Your task to perform on an android device: toggle airplane mode Image 0: 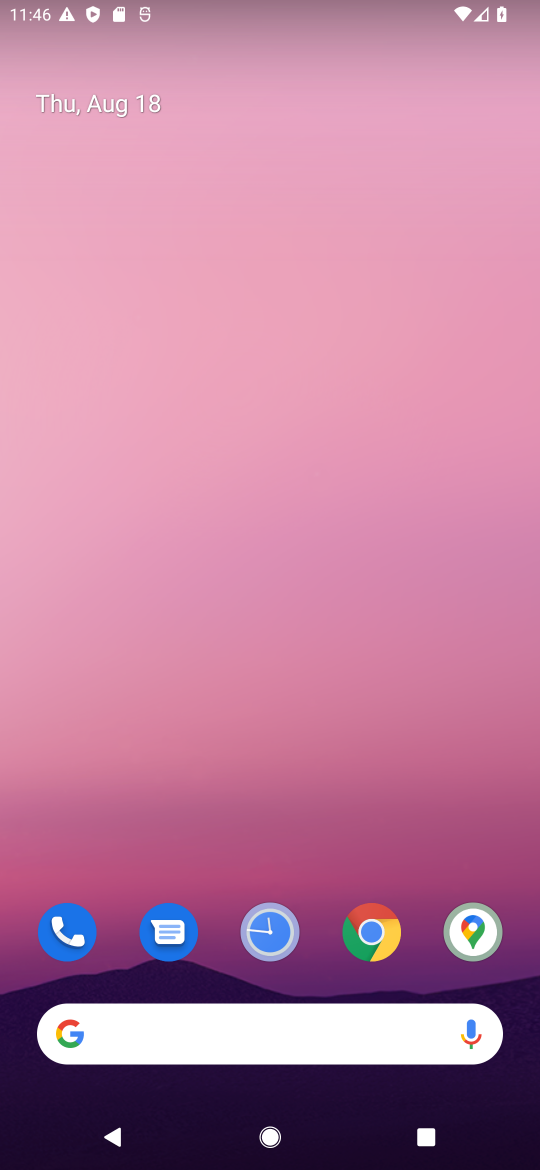
Step 0: drag from (282, 862) to (113, 16)
Your task to perform on an android device: toggle airplane mode Image 1: 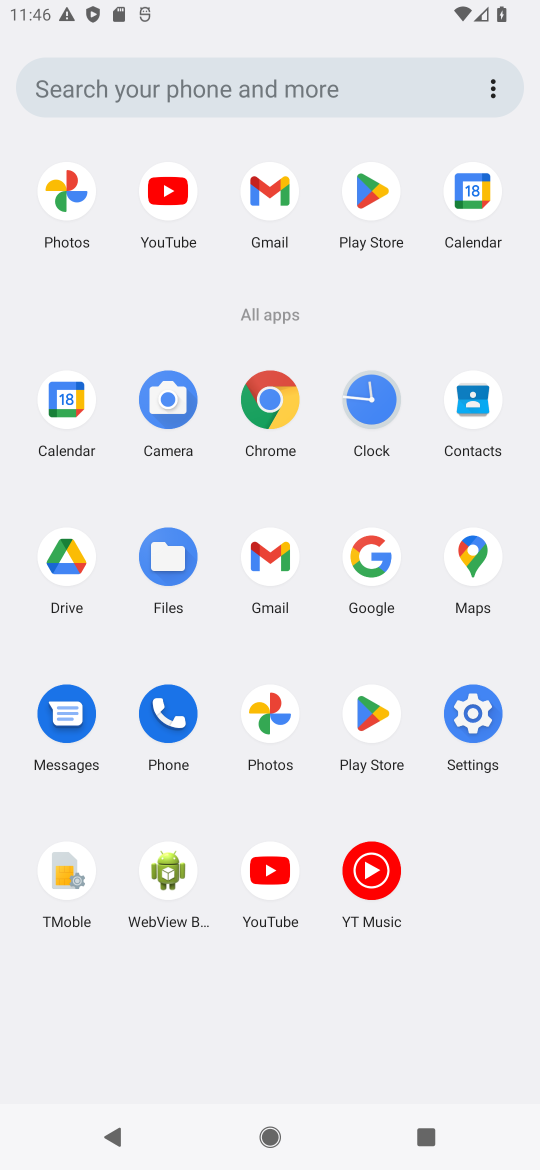
Step 1: click (459, 708)
Your task to perform on an android device: toggle airplane mode Image 2: 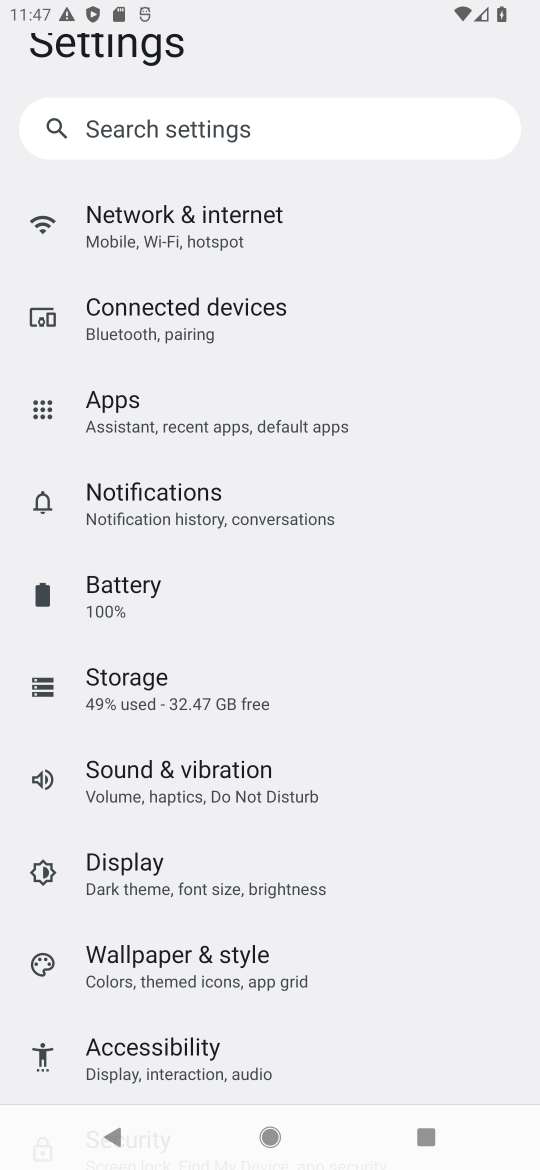
Step 2: click (110, 239)
Your task to perform on an android device: toggle airplane mode Image 3: 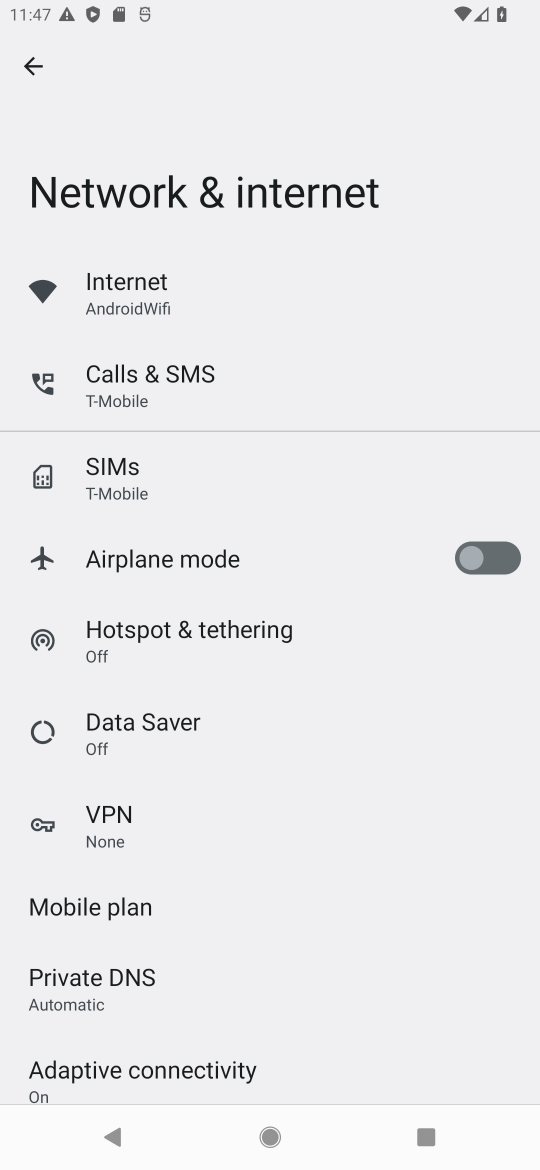
Step 3: click (453, 559)
Your task to perform on an android device: toggle airplane mode Image 4: 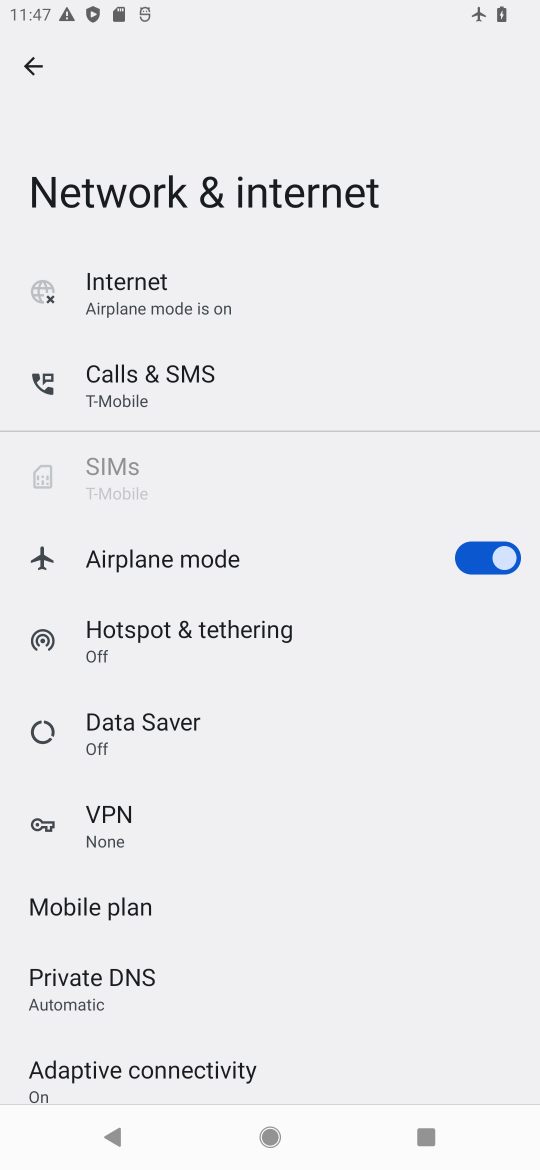
Step 4: task complete